Your task to perform on an android device: Open Amazon Image 0: 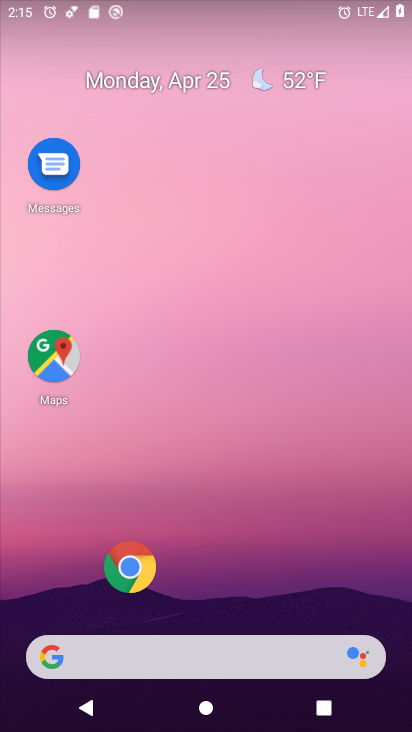
Step 0: drag from (231, 595) to (224, 256)
Your task to perform on an android device: Open Amazon Image 1: 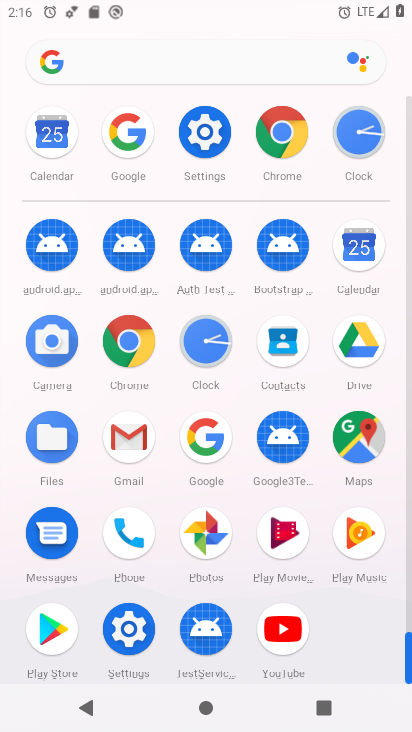
Step 1: click (298, 113)
Your task to perform on an android device: Open Amazon Image 2: 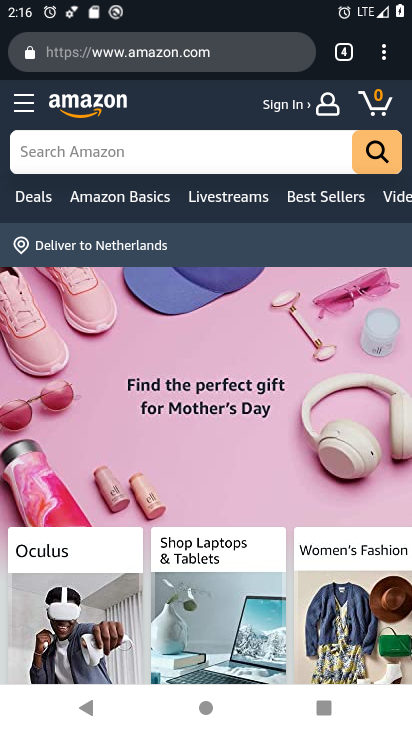
Step 2: task complete